Your task to perform on an android device: search for starred emails in the gmail app Image 0: 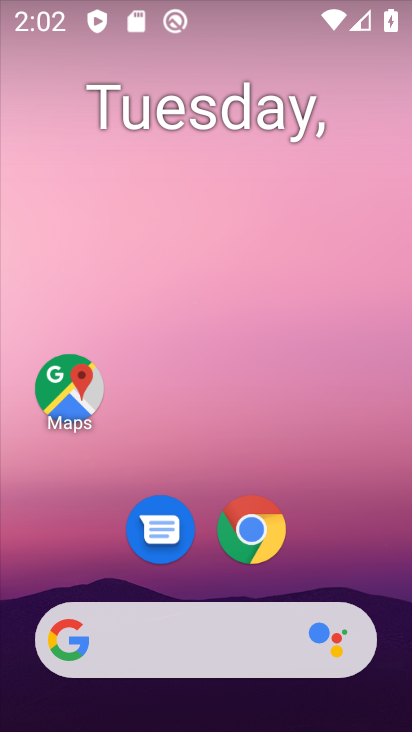
Step 0: drag from (320, 537) to (385, 10)
Your task to perform on an android device: search for starred emails in the gmail app Image 1: 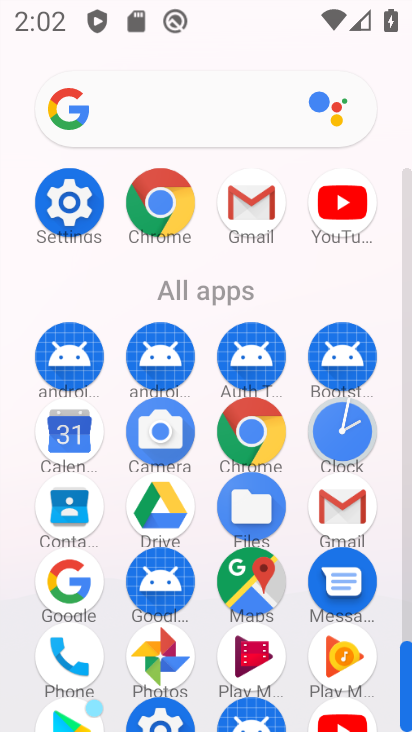
Step 1: click (340, 501)
Your task to perform on an android device: search for starred emails in the gmail app Image 2: 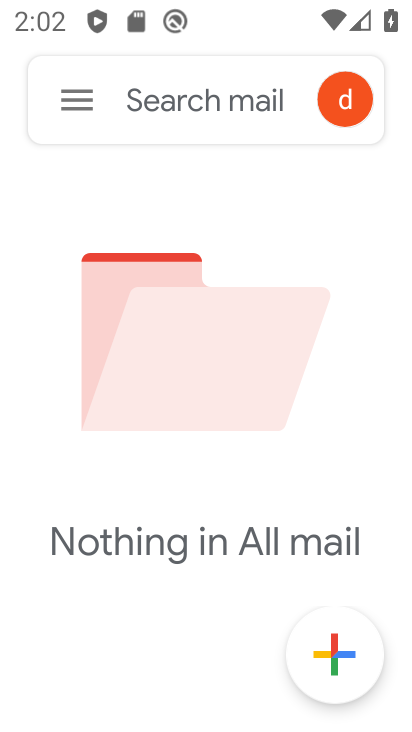
Step 2: click (77, 107)
Your task to perform on an android device: search for starred emails in the gmail app Image 3: 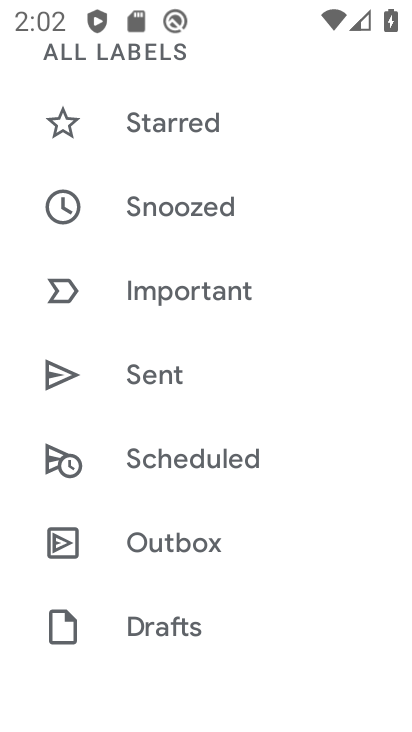
Step 3: click (183, 122)
Your task to perform on an android device: search for starred emails in the gmail app Image 4: 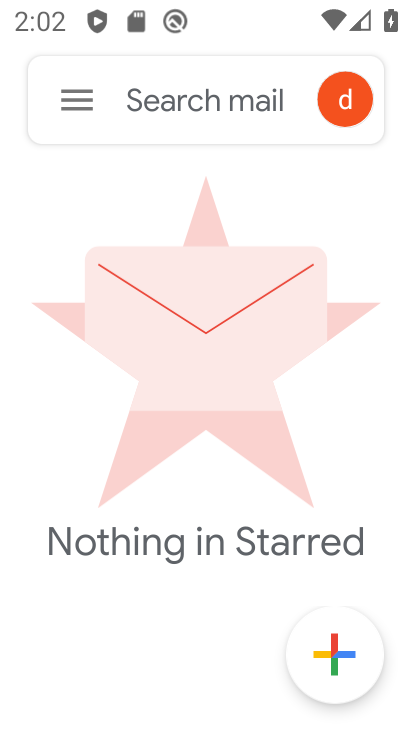
Step 4: task complete